Your task to perform on an android device: Open the Play Movies app and select the watchlist tab. Image 0: 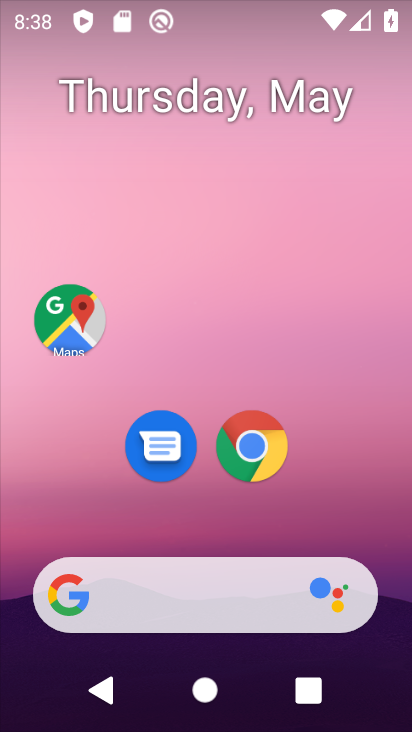
Step 0: drag from (387, 633) to (291, 104)
Your task to perform on an android device: Open the Play Movies app and select the watchlist tab. Image 1: 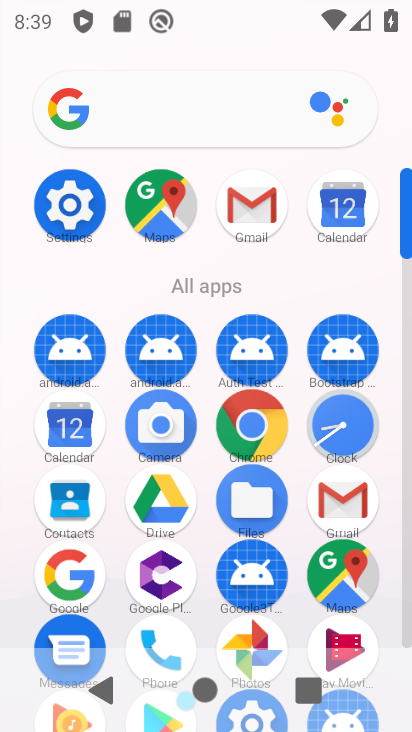
Step 1: click (403, 635)
Your task to perform on an android device: Open the Play Movies app and select the watchlist tab. Image 2: 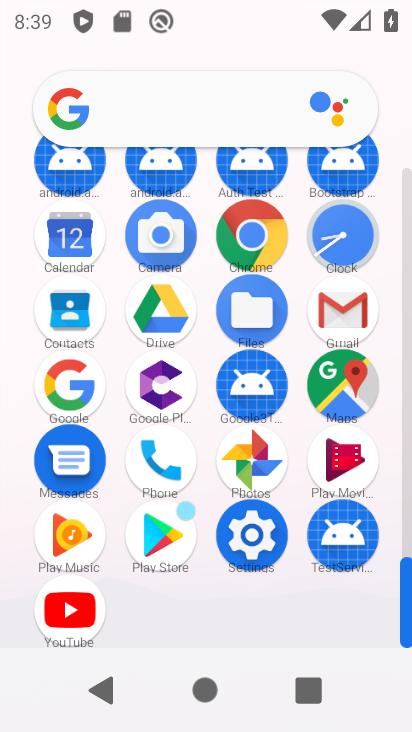
Step 2: click (339, 456)
Your task to perform on an android device: Open the Play Movies app and select the watchlist tab. Image 3: 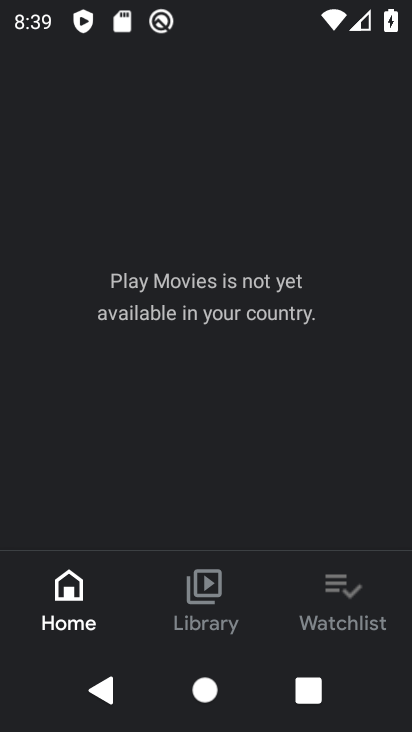
Step 3: click (344, 603)
Your task to perform on an android device: Open the Play Movies app and select the watchlist tab. Image 4: 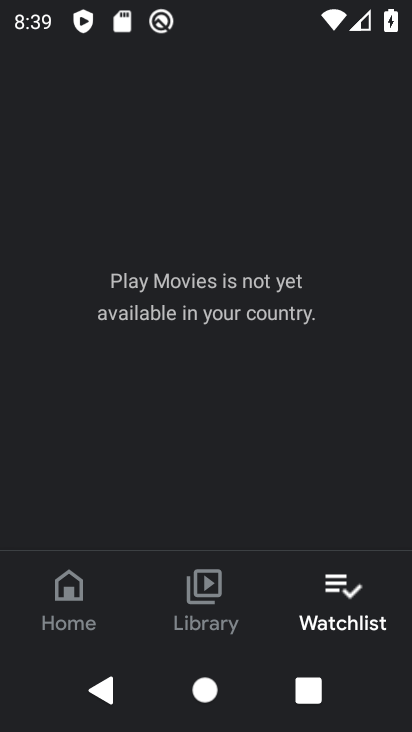
Step 4: task complete